Your task to perform on an android device: delete browsing data in the chrome app Image 0: 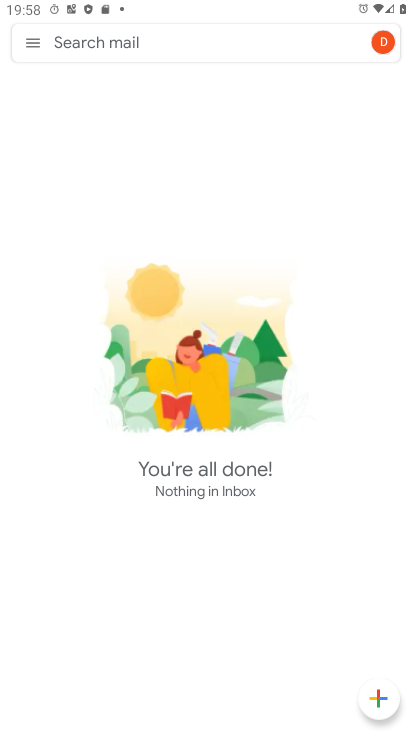
Step 0: press home button
Your task to perform on an android device: delete browsing data in the chrome app Image 1: 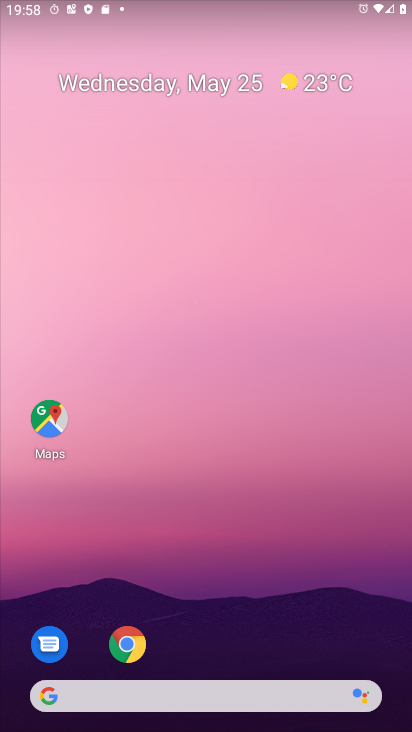
Step 1: drag from (220, 711) to (270, 248)
Your task to perform on an android device: delete browsing data in the chrome app Image 2: 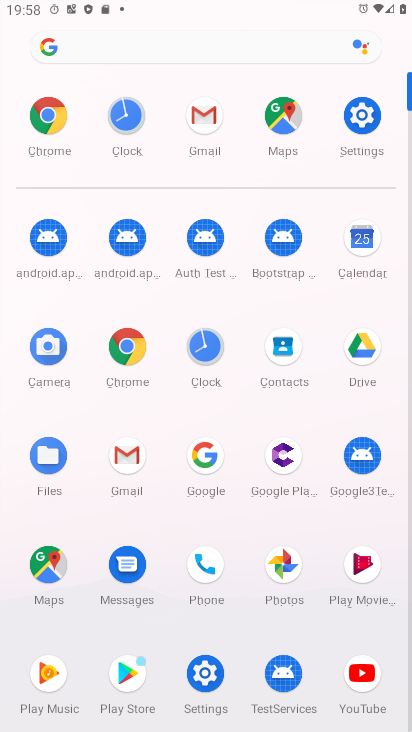
Step 2: click (136, 349)
Your task to perform on an android device: delete browsing data in the chrome app Image 3: 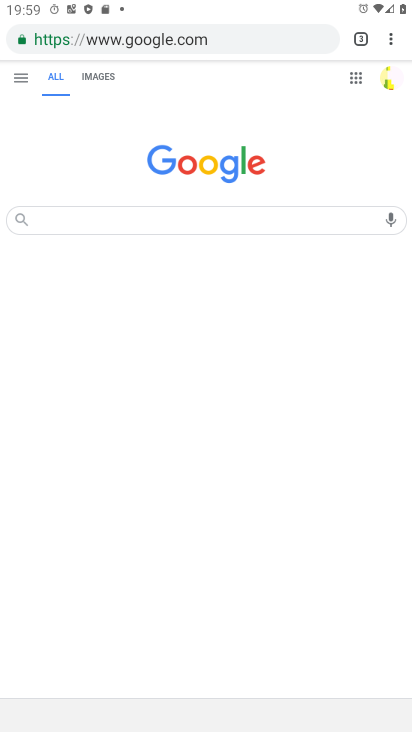
Step 3: click (390, 46)
Your task to perform on an android device: delete browsing data in the chrome app Image 4: 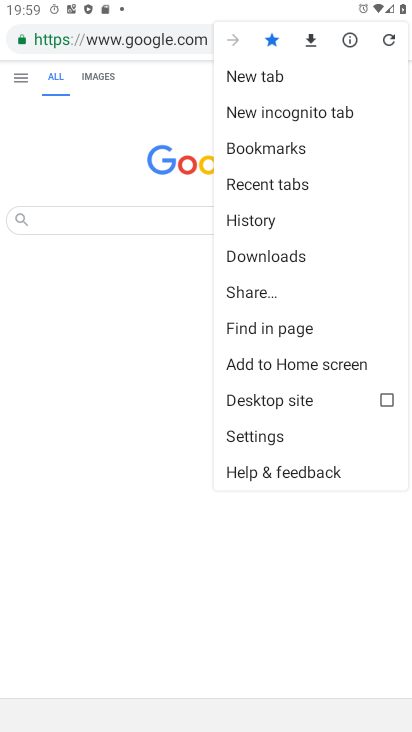
Step 4: click (280, 432)
Your task to perform on an android device: delete browsing data in the chrome app Image 5: 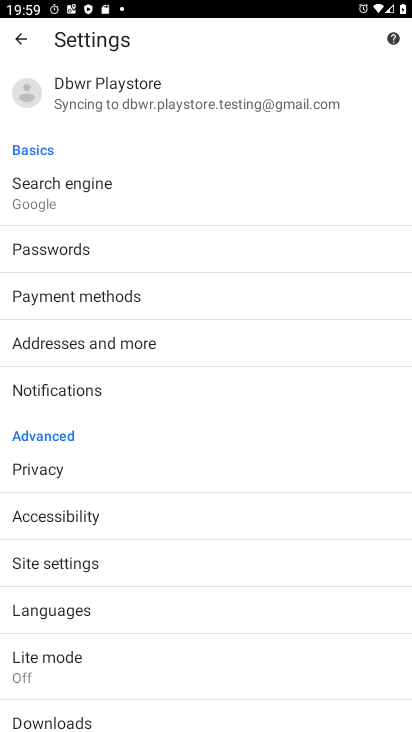
Step 5: click (39, 477)
Your task to perform on an android device: delete browsing data in the chrome app Image 6: 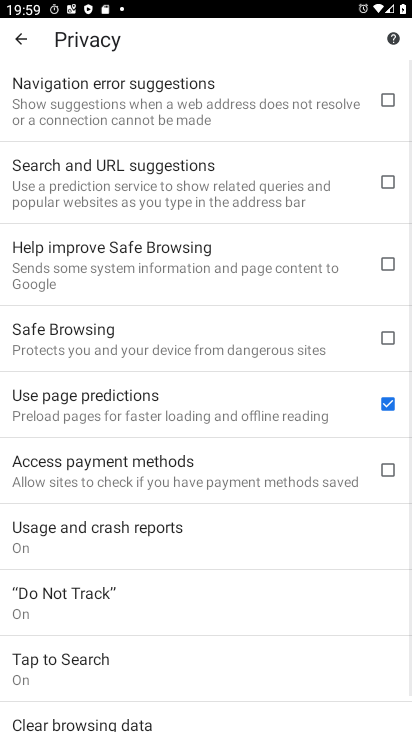
Step 6: click (166, 718)
Your task to perform on an android device: delete browsing data in the chrome app Image 7: 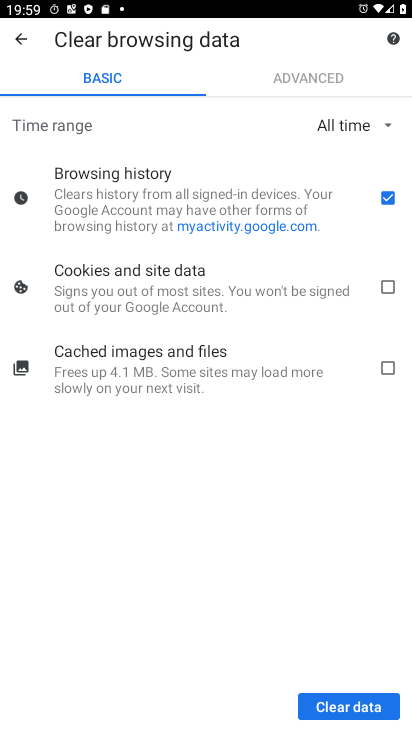
Step 7: click (346, 709)
Your task to perform on an android device: delete browsing data in the chrome app Image 8: 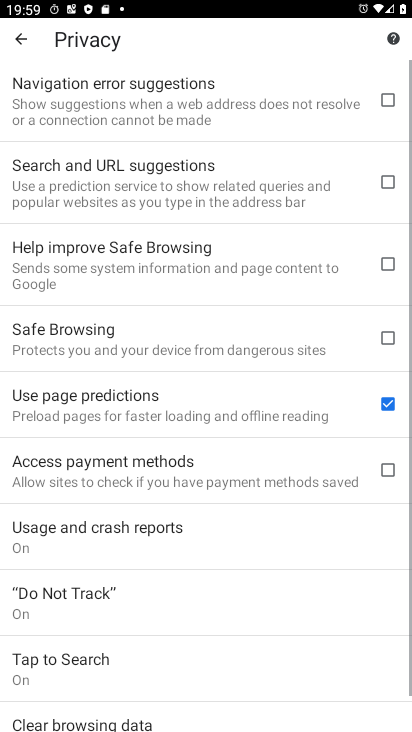
Step 8: task complete